Your task to perform on an android device: change timer sound Image 0: 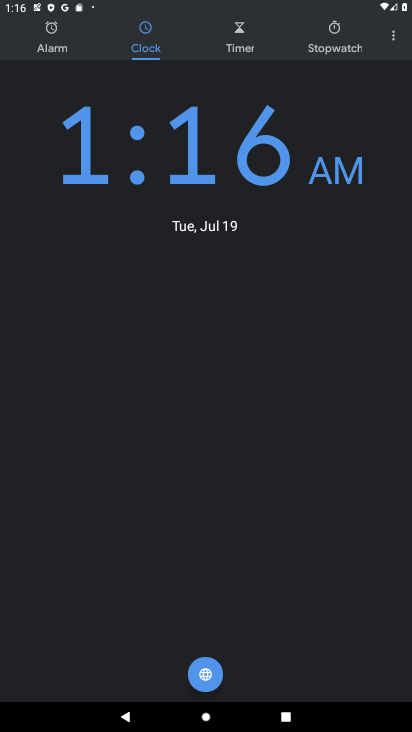
Step 0: click (387, 36)
Your task to perform on an android device: change timer sound Image 1: 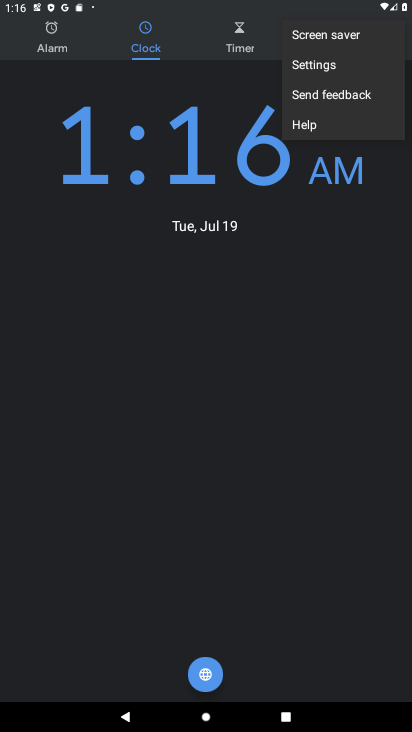
Step 1: click (314, 75)
Your task to perform on an android device: change timer sound Image 2: 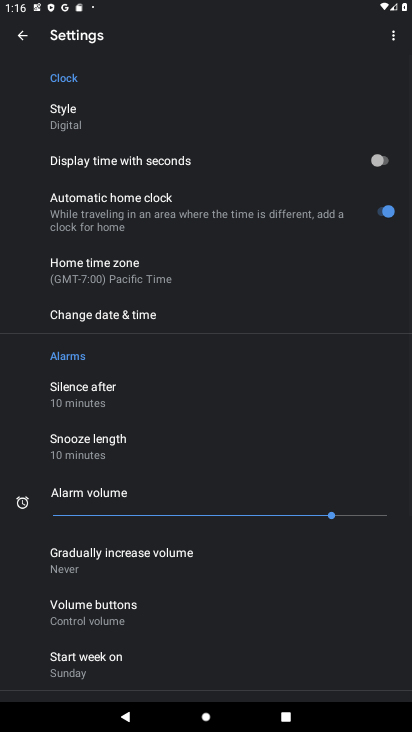
Step 2: drag from (165, 589) to (168, 366)
Your task to perform on an android device: change timer sound Image 3: 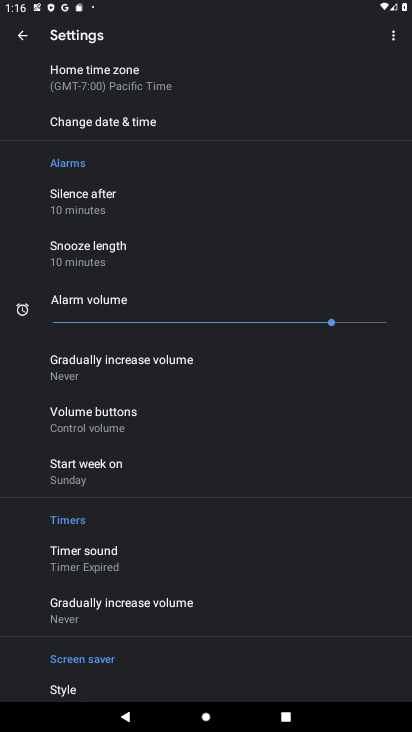
Step 3: click (97, 565)
Your task to perform on an android device: change timer sound Image 4: 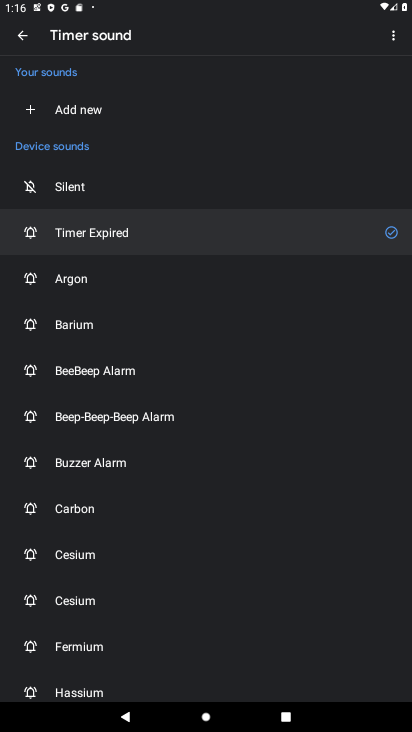
Step 4: click (77, 322)
Your task to perform on an android device: change timer sound Image 5: 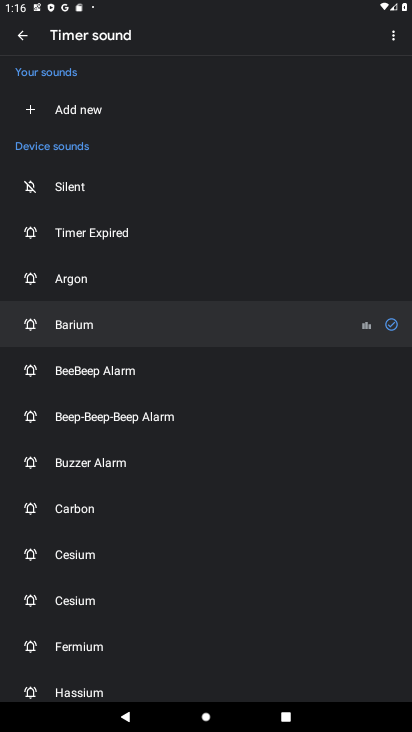
Step 5: task complete